Your task to perform on an android device: Search for logitech g pro on bestbuy, select the first entry, add it to the cart, then select checkout. Image 0: 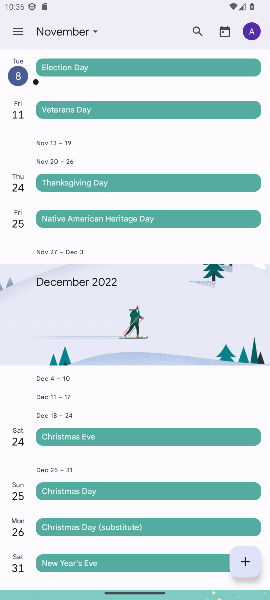
Step 0: press home button
Your task to perform on an android device: Search for logitech g pro on bestbuy, select the first entry, add it to the cart, then select checkout. Image 1: 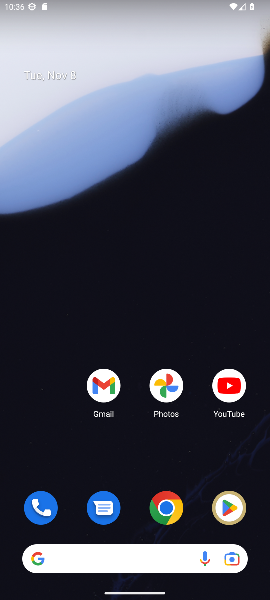
Step 1: click (166, 499)
Your task to perform on an android device: Search for logitech g pro on bestbuy, select the first entry, add it to the cart, then select checkout. Image 2: 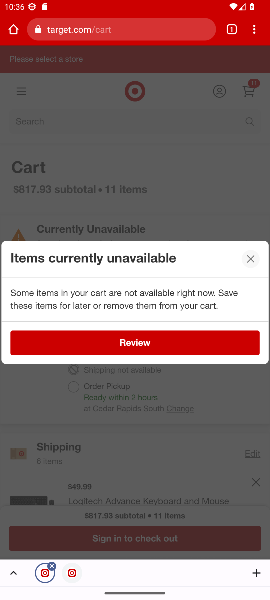
Step 2: click (87, 25)
Your task to perform on an android device: Search for logitech g pro on bestbuy, select the first entry, add it to the cart, then select checkout. Image 3: 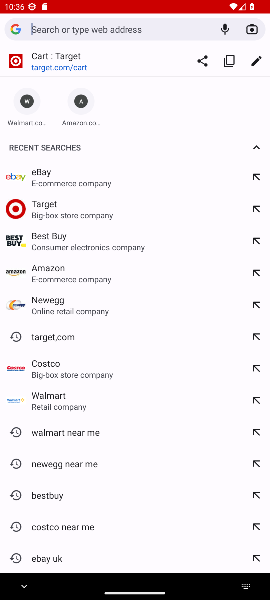
Step 3: type "bestbuy"
Your task to perform on an android device: Search for logitech g pro on bestbuy, select the first entry, add it to the cart, then select checkout. Image 4: 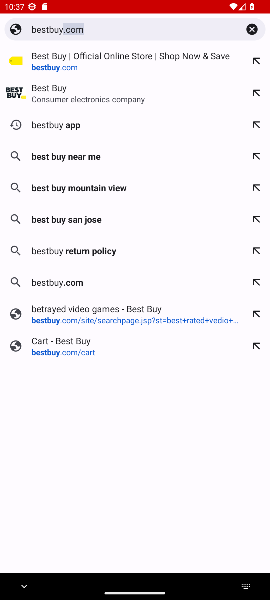
Step 4: click (57, 90)
Your task to perform on an android device: Search for logitech g pro on bestbuy, select the first entry, add it to the cart, then select checkout. Image 5: 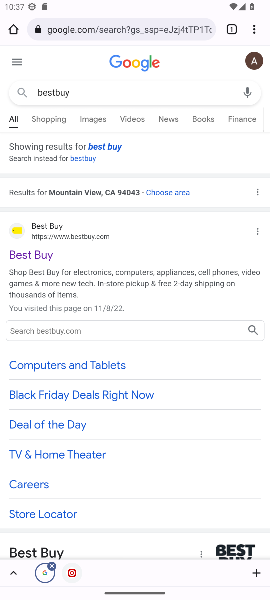
Step 5: click (20, 255)
Your task to perform on an android device: Search for logitech g pro on bestbuy, select the first entry, add it to the cart, then select checkout. Image 6: 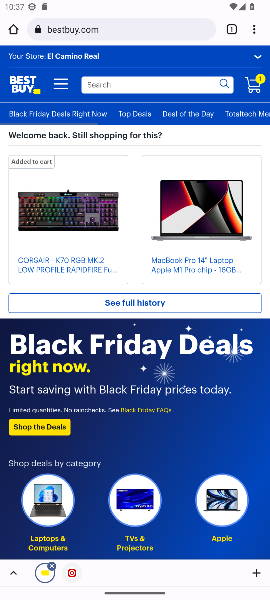
Step 6: click (118, 80)
Your task to perform on an android device: Search for logitech g pro on bestbuy, select the first entry, add it to the cart, then select checkout. Image 7: 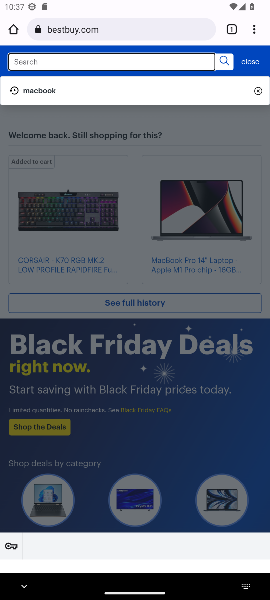
Step 7: type "bestbuy"
Your task to perform on an android device: Search for logitech g pro on bestbuy, select the first entry, add it to the cart, then select checkout. Image 8: 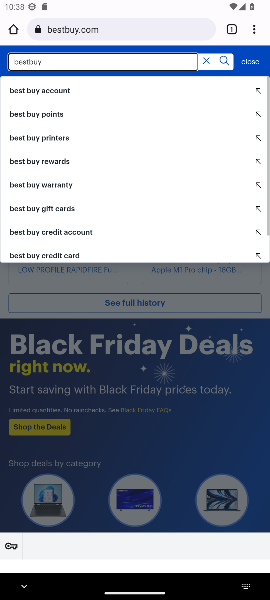
Step 8: click (39, 89)
Your task to perform on an android device: Search for logitech g pro on bestbuy, select the first entry, add it to the cart, then select checkout. Image 9: 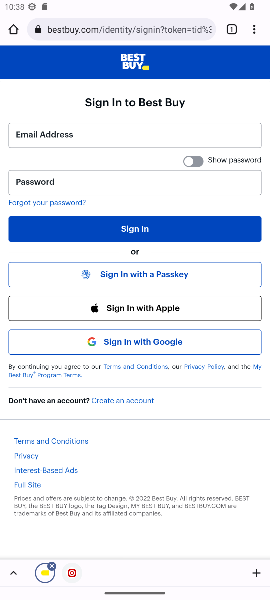
Step 9: click (149, 236)
Your task to perform on an android device: Search for logitech g pro on bestbuy, select the first entry, add it to the cart, then select checkout. Image 10: 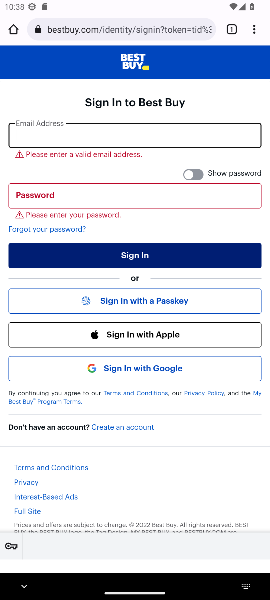
Step 10: task complete